Your task to perform on an android device: Go to Amazon Image 0: 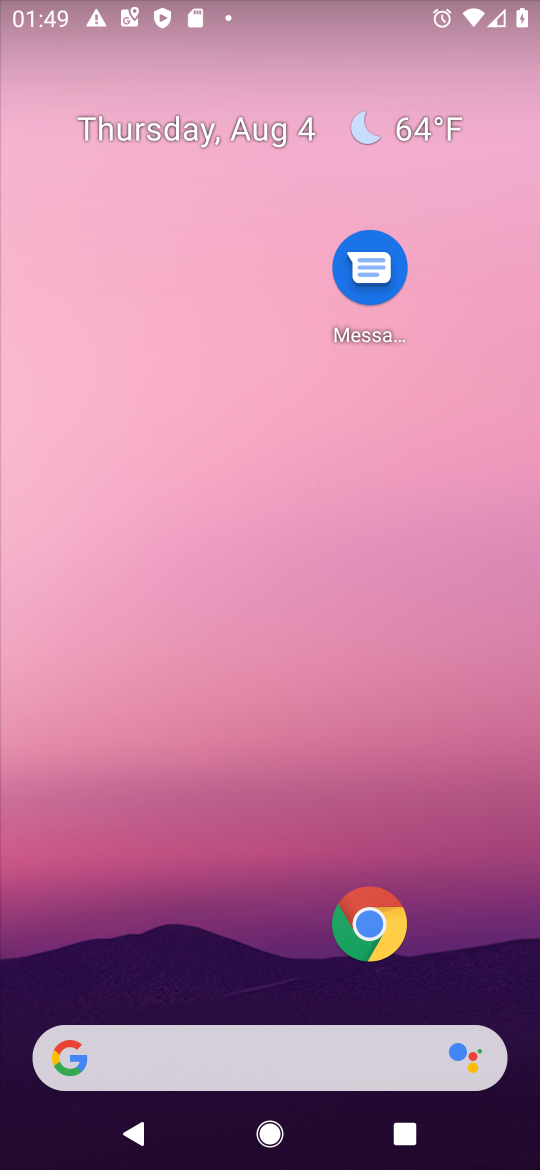
Step 0: drag from (48, 1122) to (253, 160)
Your task to perform on an android device: Go to Amazon Image 1: 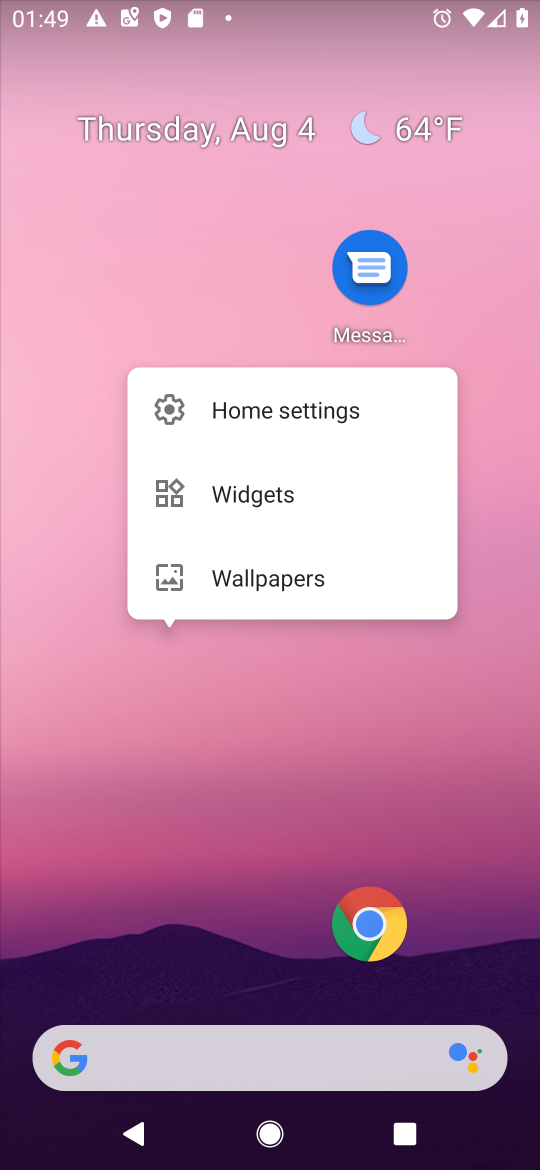
Step 1: click (125, 1036)
Your task to perform on an android device: Go to Amazon Image 2: 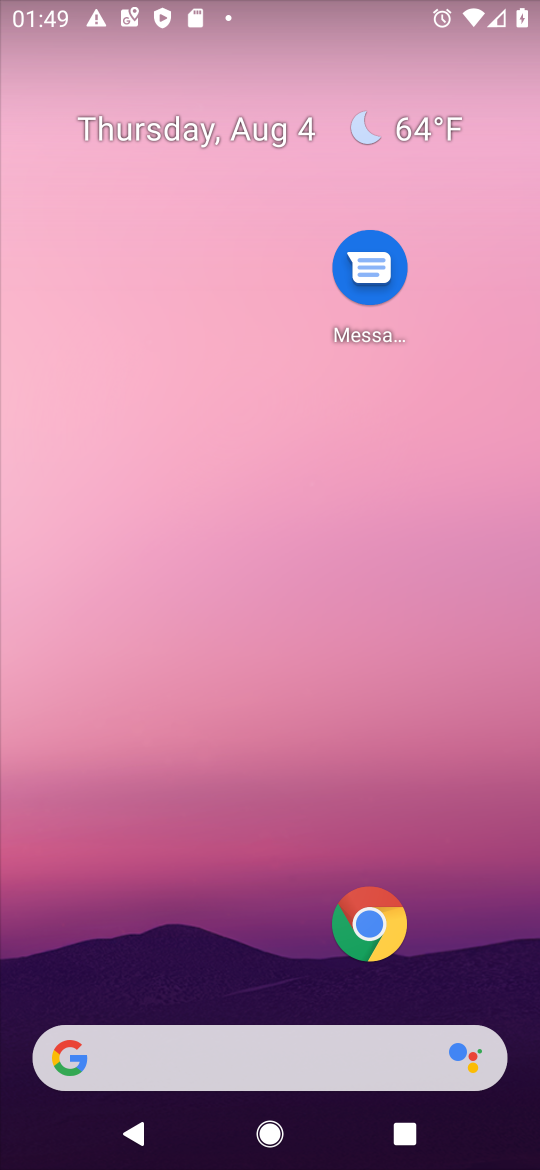
Step 2: click (130, 1067)
Your task to perform on an android device: Go to Amazon Image 3: 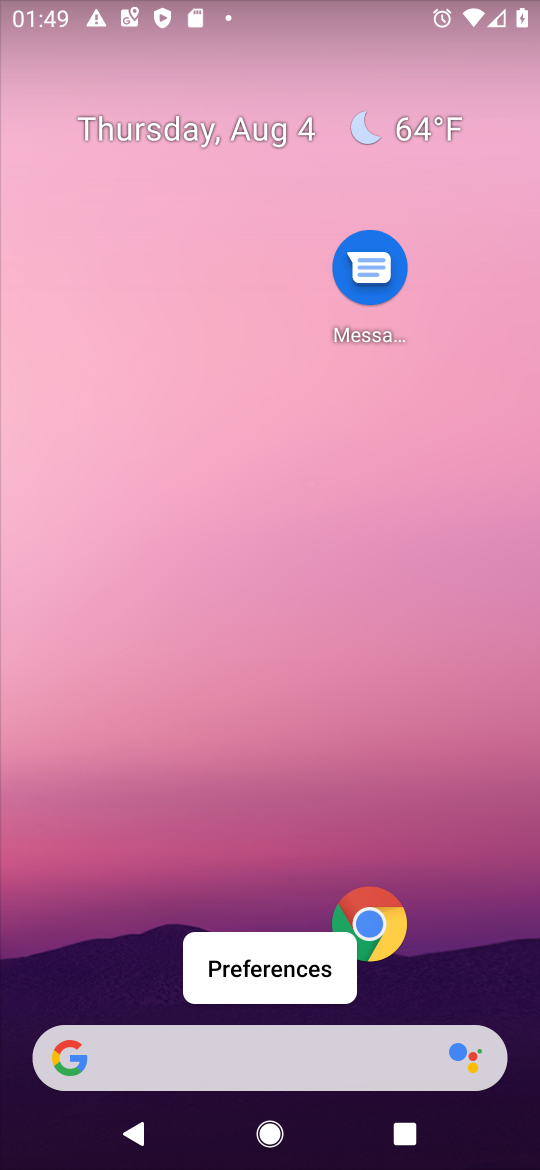
Step 3: click (124, 1053)
Your task to perform on an android device: Go to Amazon Image 4: 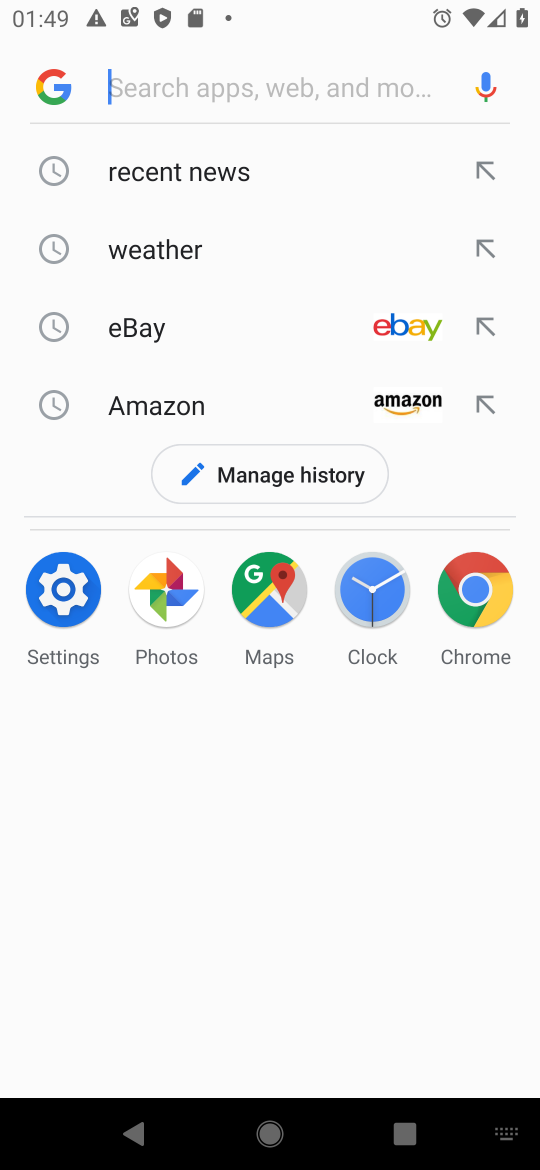
Step 4: click (157, 396)
Your task to perform on an android device: Go to Amazon Image 5: 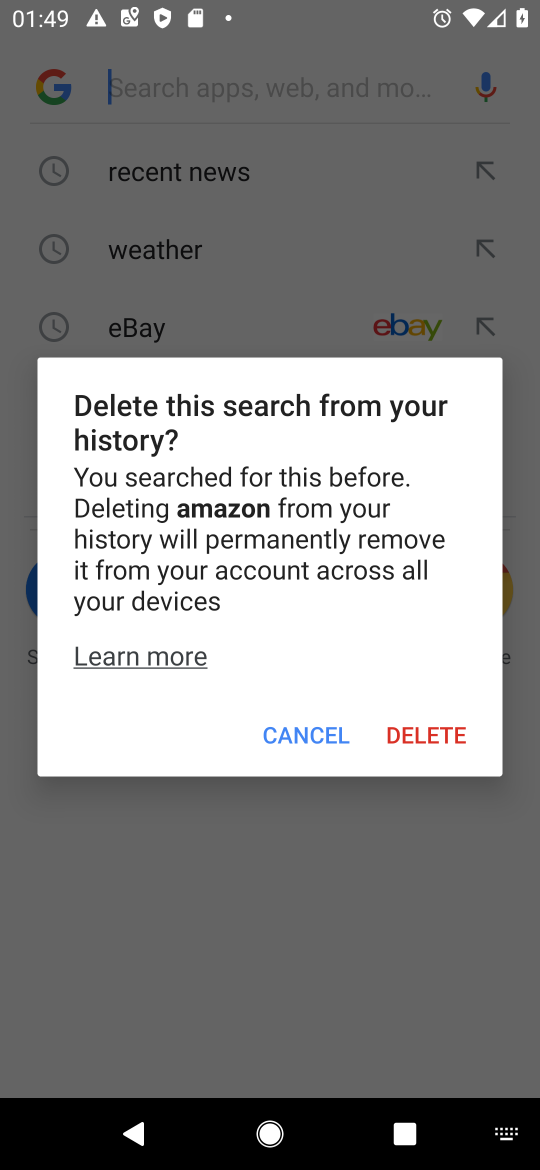
Step 5: click (312, 741)
Your task to perform on an android device: Go to Amazon Image 6: 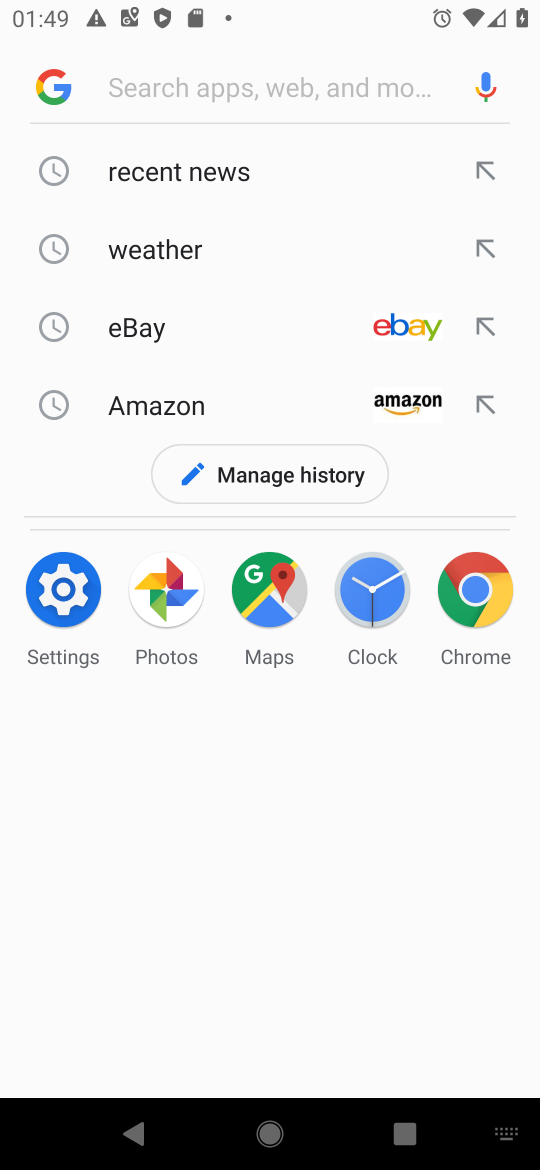
Step 6: click (168, 419)
Your task to perform on an android device: Go to Amazon Image 7: 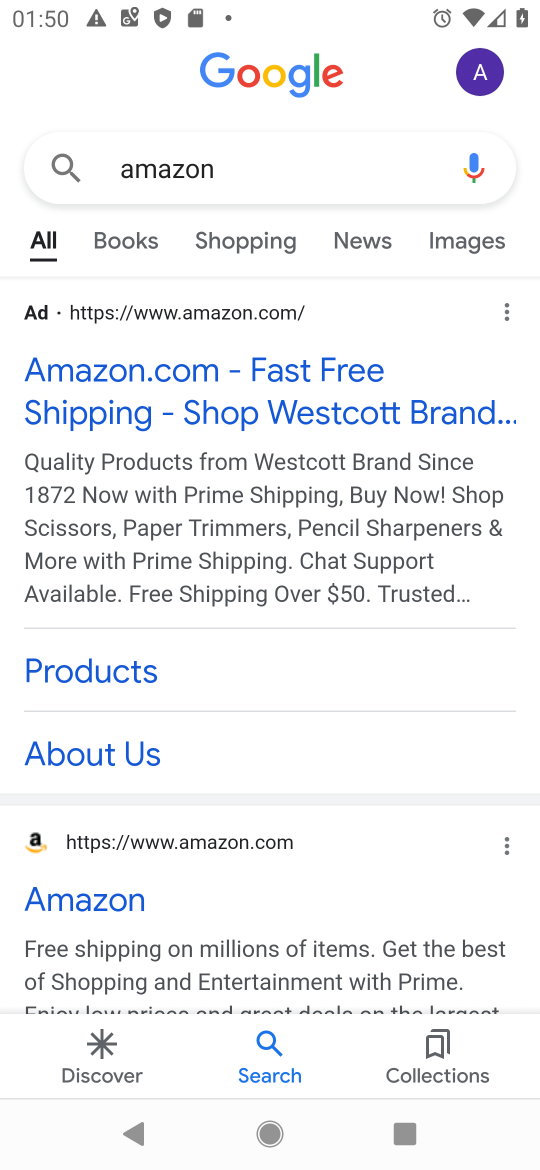
Step 7: task complete